Your task to perform on an android device: Go to calendar. Show me events next week Image 0: 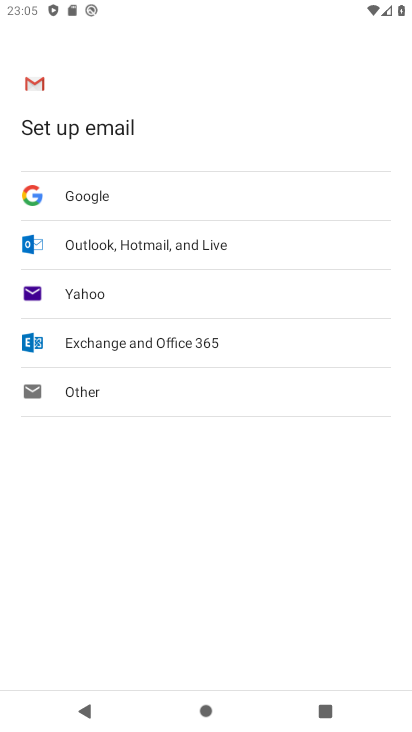
Step 0: press home button
Your task to perform on an android device: Go to calendar. Show me events next week Image 1: 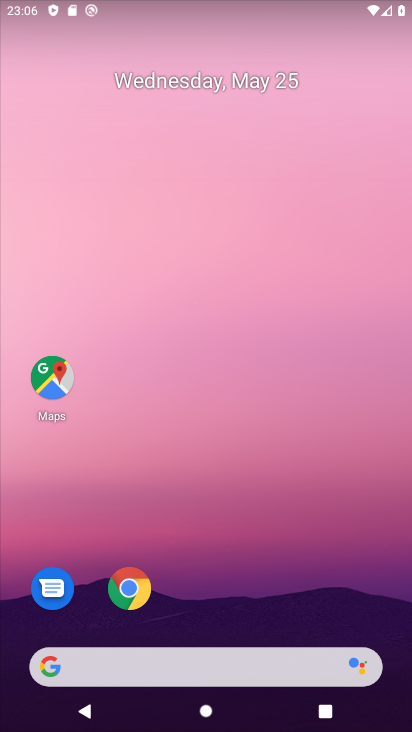
Step 1: drag from (191, 627) to (338, 123)
Your task to perform on an android device: Go to calendar. Show me events next week Image 2: 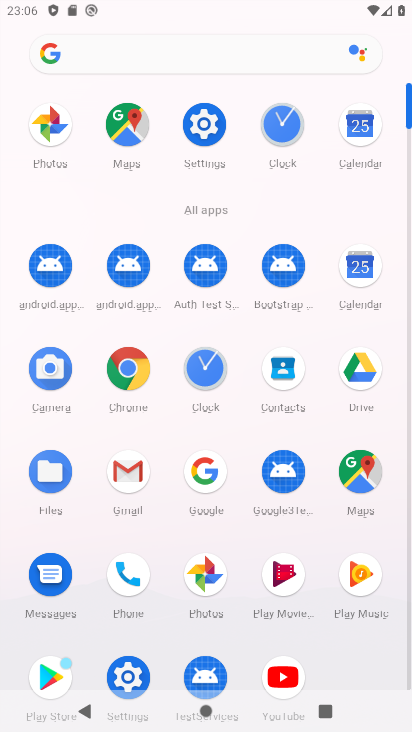
Step 2: click (357, 276)
Your task to perform on an android device: Go to calendar. Show me events next week Image 3: 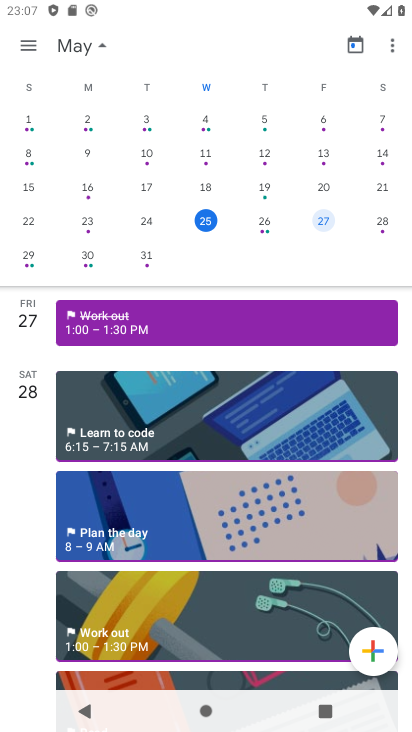
Step 3: click (373, 214)
Your task to perform on an android device: Go to calendar. Show me events next week Image 4: 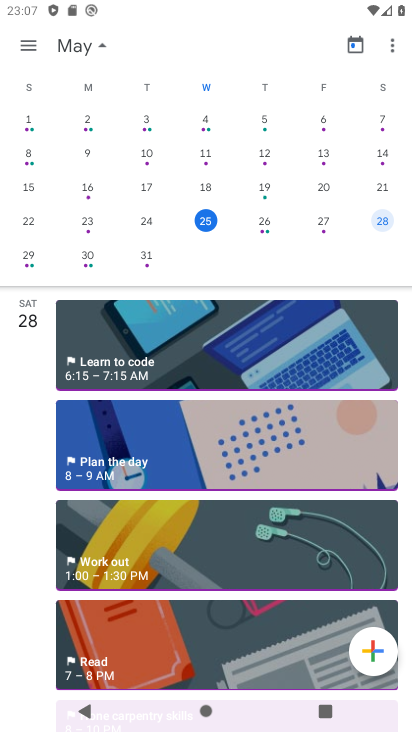
Step 4: click (31, 255)
Your task to perform on an android device: Go to calendar. Show me events next week Image 5: 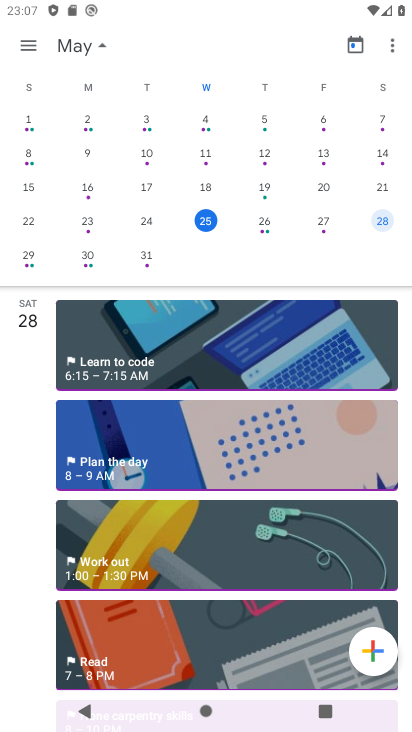
Step 5: click (108, 257)
Your task to perform on an android device: Go to calendar. Show me events next week Image 6: 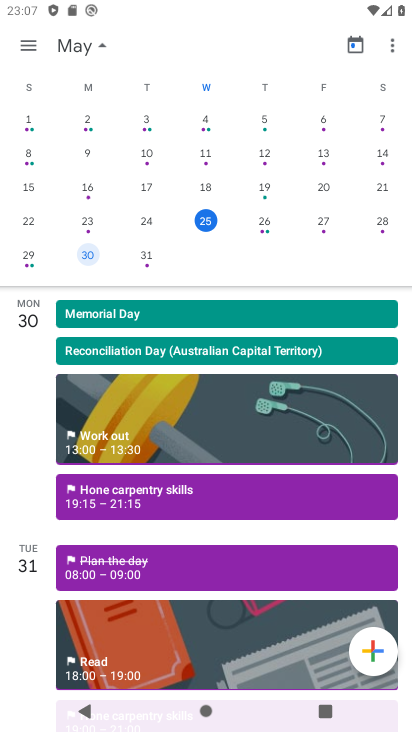
Step 6: click (153, 264)
Your task to perform on an android device: Go to calendar. Show me events next week Image 7: 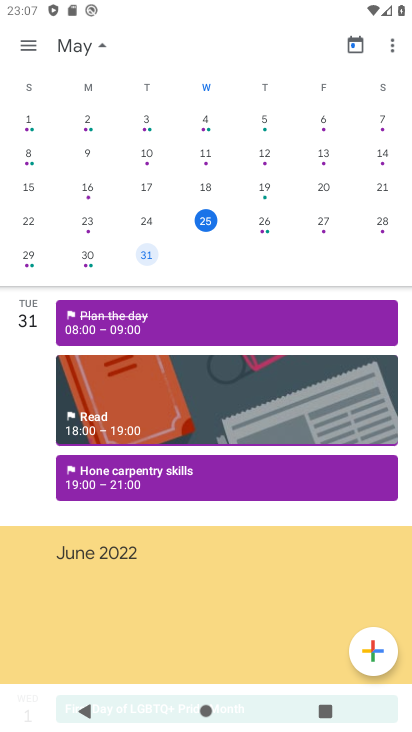
Step 7: task complete